Your task to perform on an android device: Go to wifi settings Image 0: 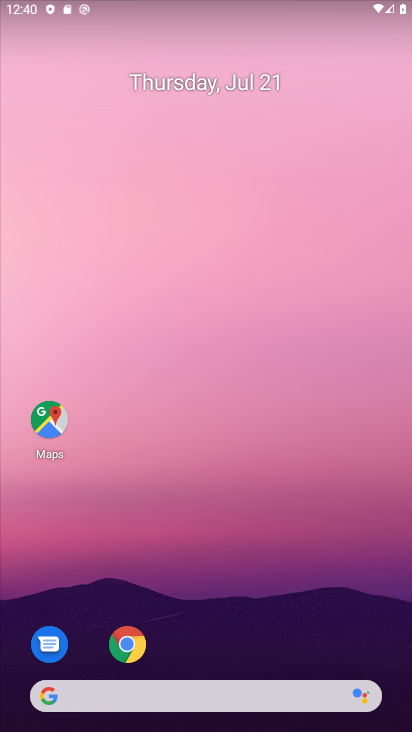
Step 0: drag from (248, 3) to (237, 387)
Your task to perform on an android device: Go to wifi settings Image 1: 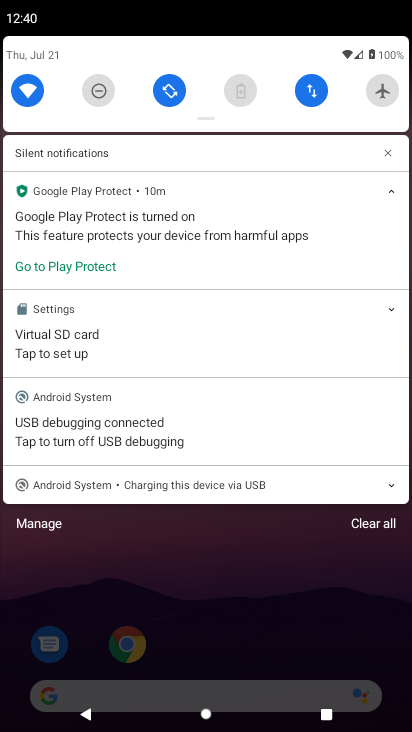
Step 1: click (31, 92)
Your task to perform on an android device: Go to wifi settings Image 2: 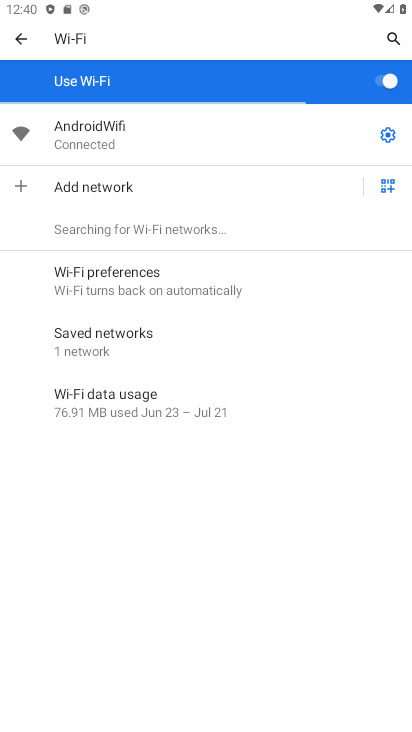
Step 2: task complete